Your task to perform on an android device: Turn off the flashlight Image 0: 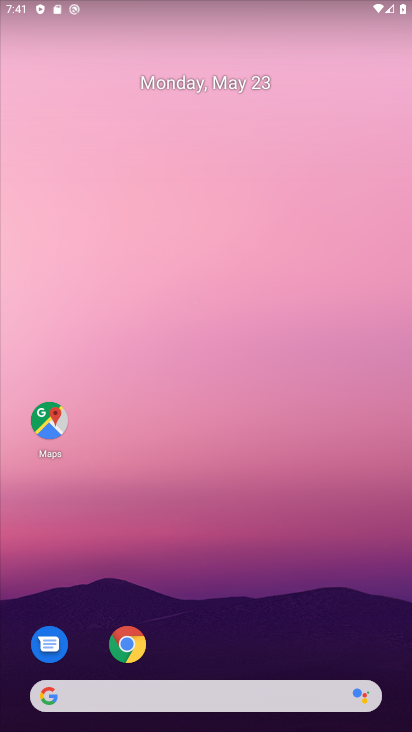
Step 0: drag from (40, 636) to (318, 171)
Your task to perform on an android device: Turn off the flashlight Image 1: 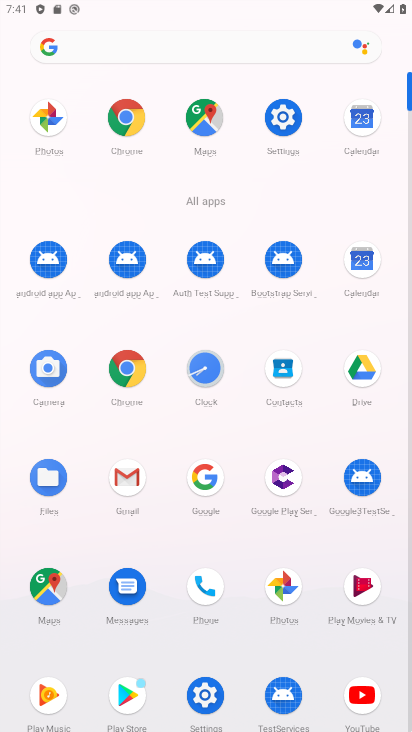
Step 1: click (274, 117)
Your task to perform on an android device: Turn off the flashlight Image 2: 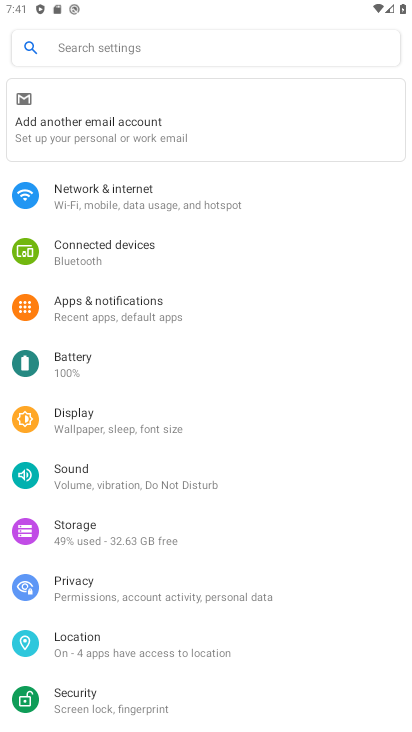
Step 2: click (130, 592)
Your task to perform on an android device: Turn off the flashlight Image 3: 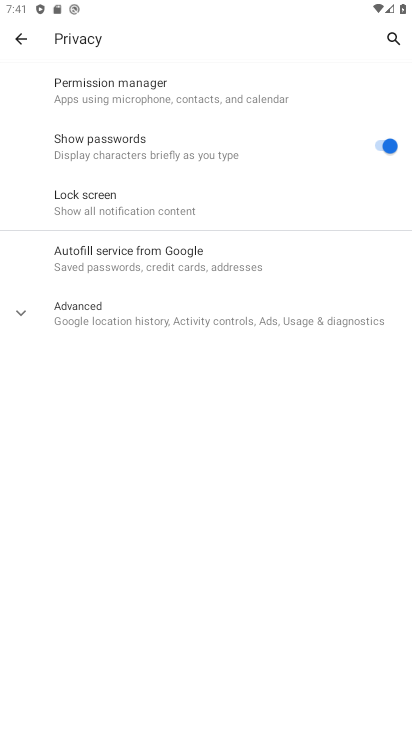
Step 3: task complete